Your task to perform on an android device: snooze an email in the gmail app Image 0: 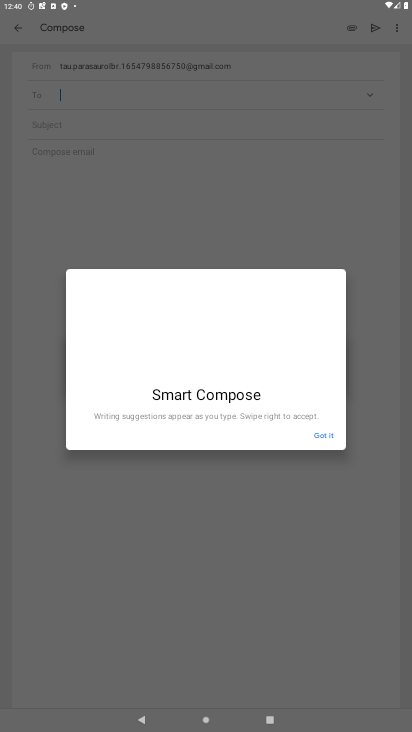
Step 0: press home button
Your task to perform on an android device: snooze an email in the gmail app Image 1: 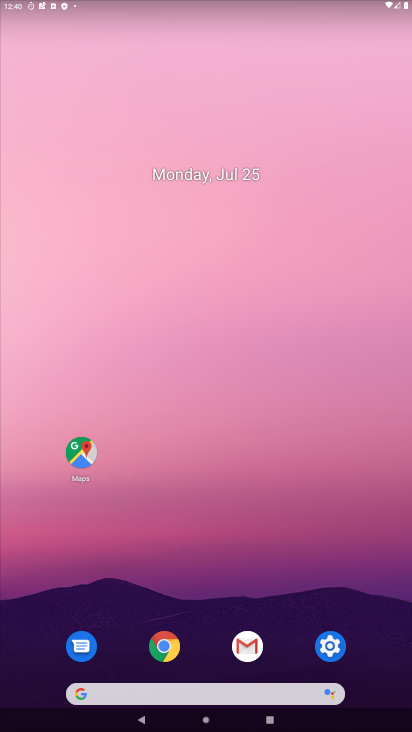
Step 1: drag from (187, 693) to (201, 114)
Your task to perform on an android device: snooze an email in the gmail app Image 2: 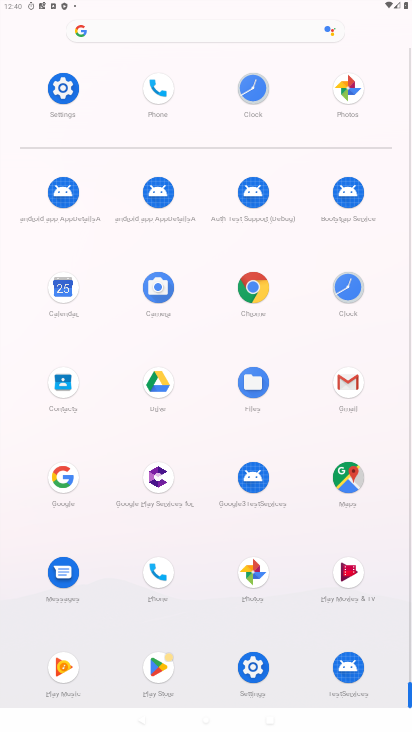
Step 2: click (340, 370)
Your task to perform on an android device: snooze an email in the gmail app Image 3: 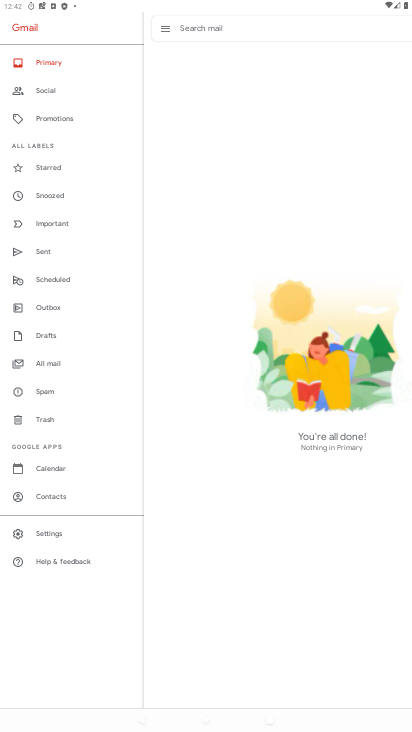
Step 3: click (38, 209)
Your task to perform on an android device: snooze an email in the gmail app Image 4: 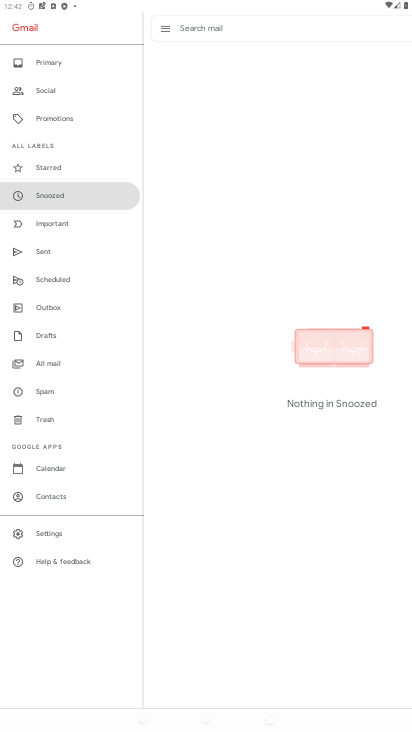
Step 4: task complete